Your task to perform on an android device: toggle notification dots Image 0: 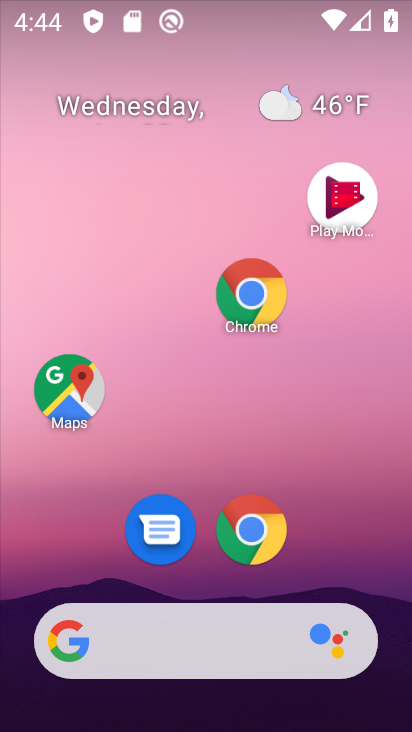
Step 0: drag from (368, 547) to (411, 76)
Your task to perform on an android device: toggle notification dots Image 1: 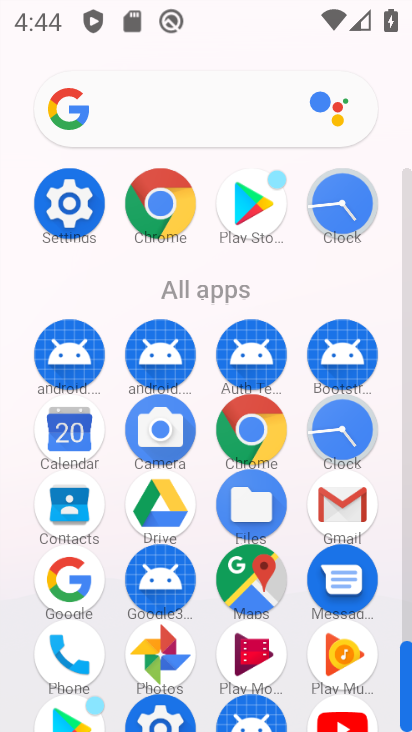
Step 1: click (72, 202)
Your task to perform on an android device: toggle notification dots Image 2: 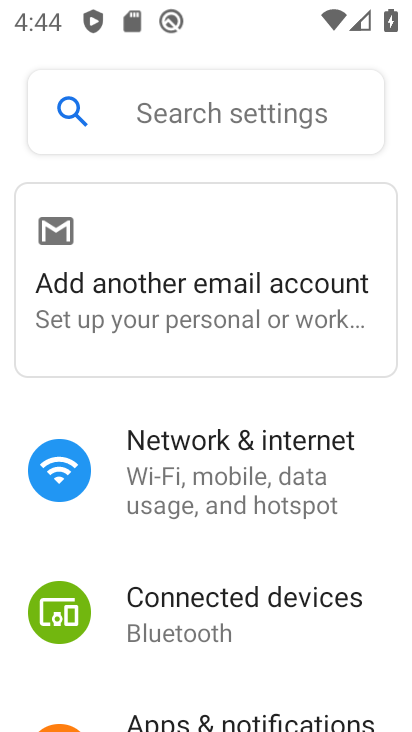
Step 2: drag from (288, 598) to (327, 328)
Your task to perform on an android device: toggle notification dots Image 3: 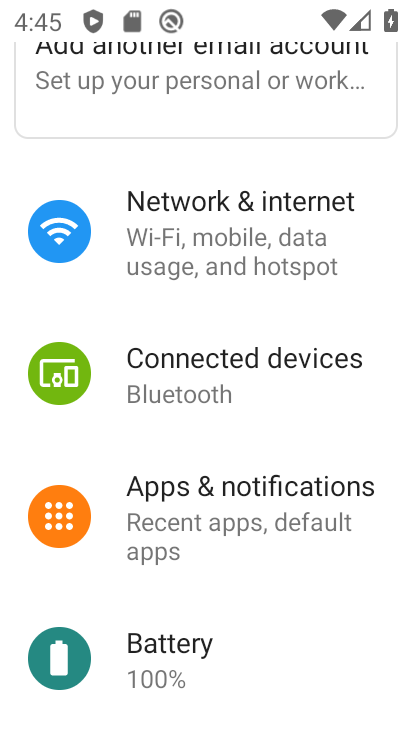
Step 3: click (287, 508)
Your task to perform on an android device: toggle notification dots Image 4: 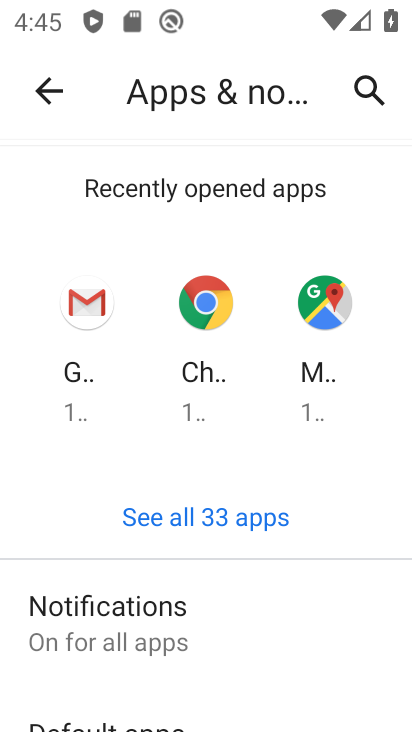
Step 4: click (182, 637)
Your task to perform on an android device: toggle notification dots Image 5: 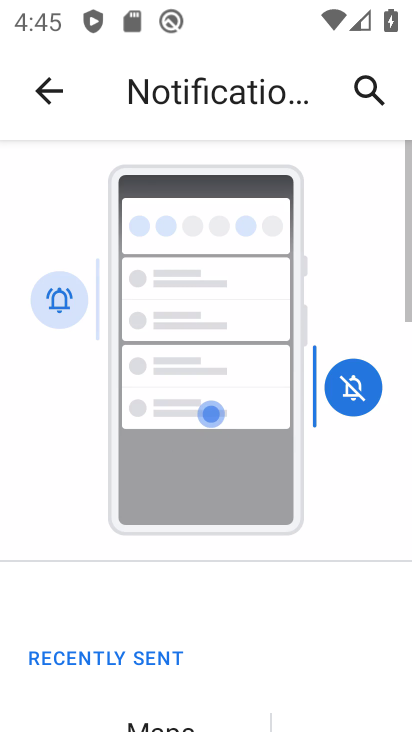
Step 5: drag from (211, 654) to (275, 269)
Your task to perform on an android device: toggle notification dots Image 6: 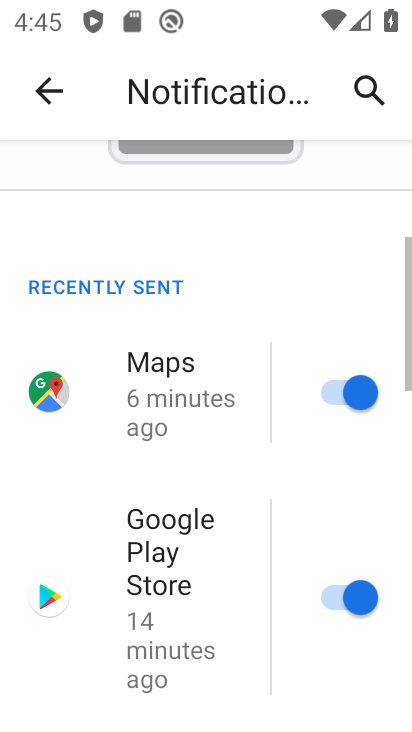
Step 6: drag from (207, 661) to (279, 212)
Your task to perform on an android device: toggle notification dots Image 7: 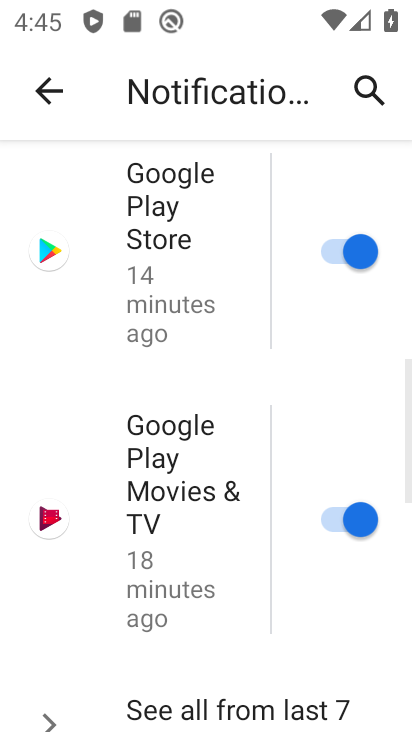
Step 7: drag from (227, 639) to (285, 237)
Your task to perform on an android device: toggle notification dots Image 8: 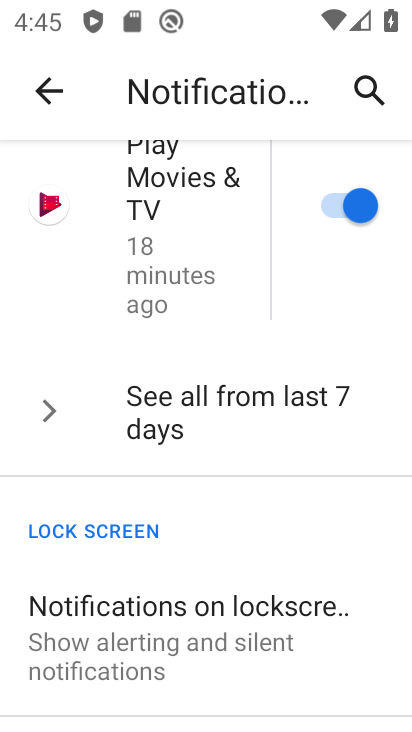
Step 8: drag from (190, 688) to (225, 463)
Your task to perform on an android device: toggle notification dots Image 9: 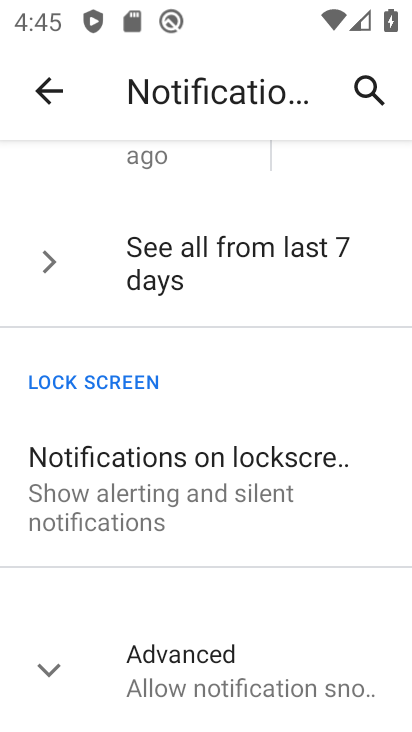
Step 9: click (55, 661)
Your task to perform on an android device: toggle notification dots Image 10: 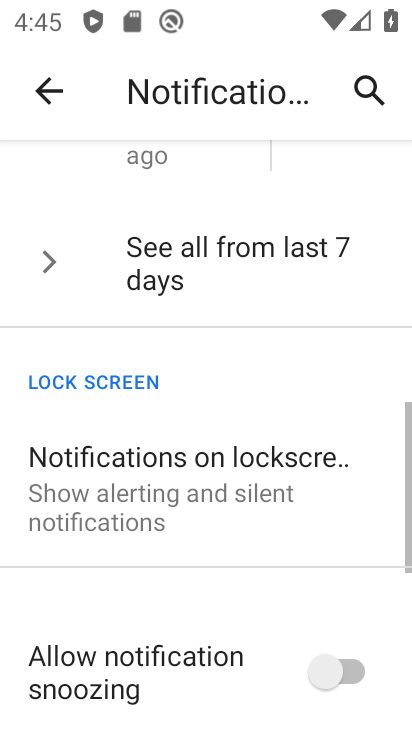
Step 10: drag from (242, 675) to (283, 256)
Your task to perform on an android device: toggle notification dots Image 11: 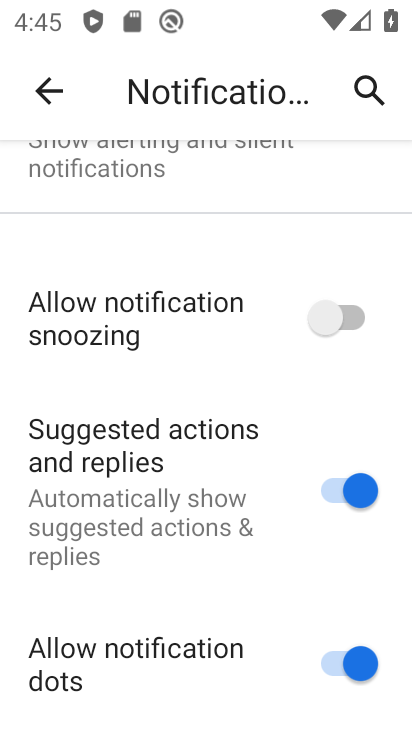
Step 11: click (362, 667)
Your task to perform on an android device: toggle notification dots Image 12: 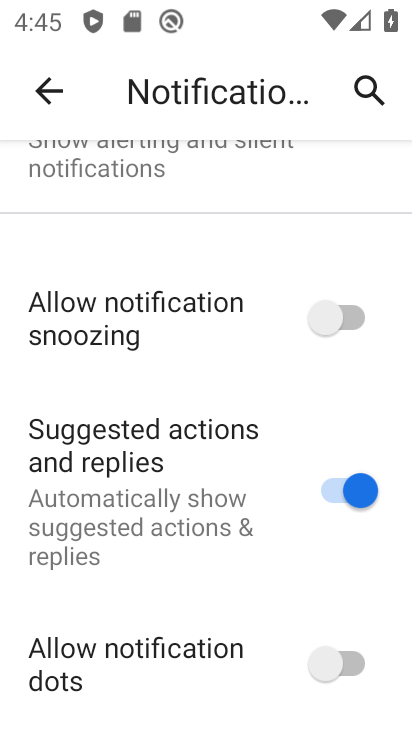
Step 12: task complete